Your task to perform on an android device: Open Wikipedia Image 0: 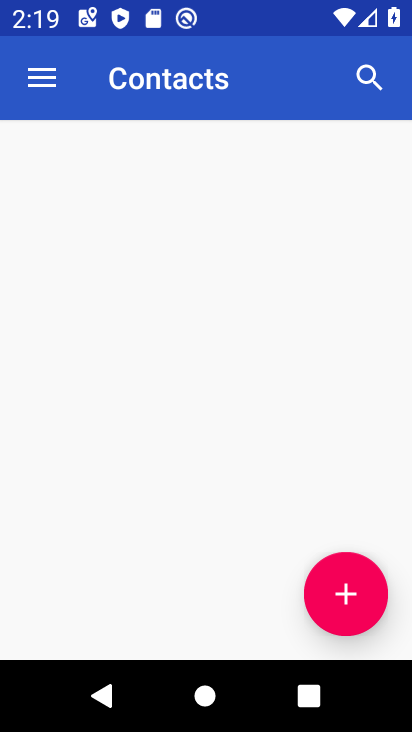
Step 0: drag from (334, 554) to (307, 108)
Your task to perform on an android device: Open Wikipedia Image 1: 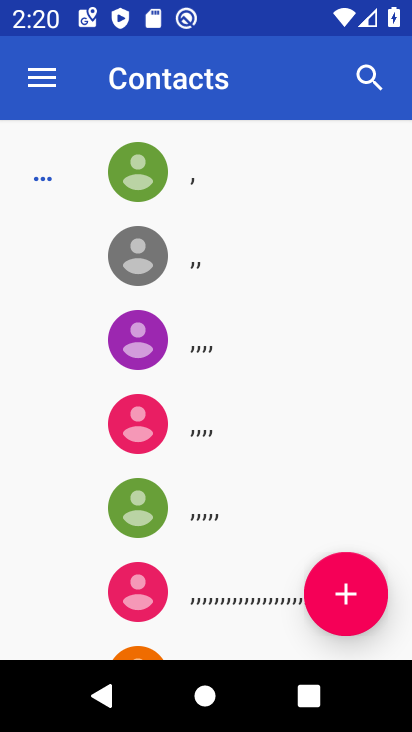
Step 1: press home button
Your task to perform on an android device: Open Wikipedia Image 2: 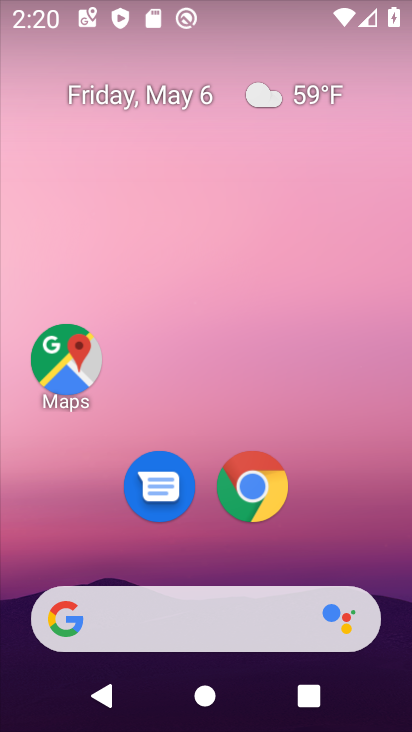
Step 2: click (247, 483)
Your task to perform on an android device: Open Wikipedia Image 3: 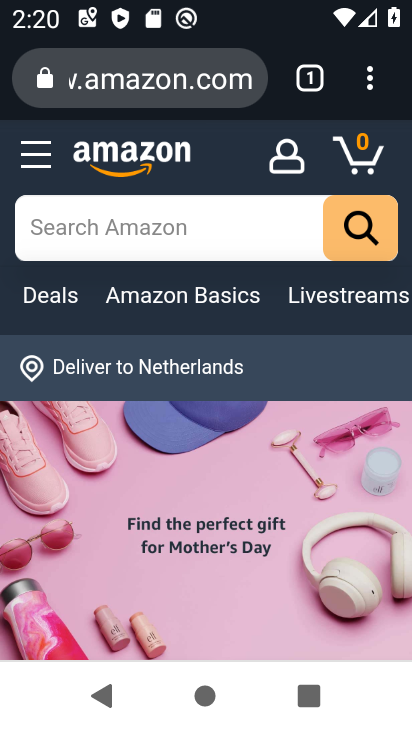
Step 3: click (369, 75)
Your task to perform on an android device: Open Wikipedia Image 4: 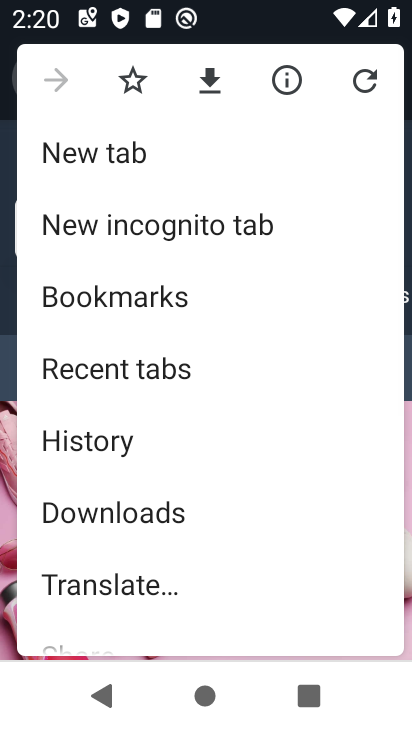
Step 4: click (110, 150)
Your task to perform on an android device: Open Wikipedia Image 5: 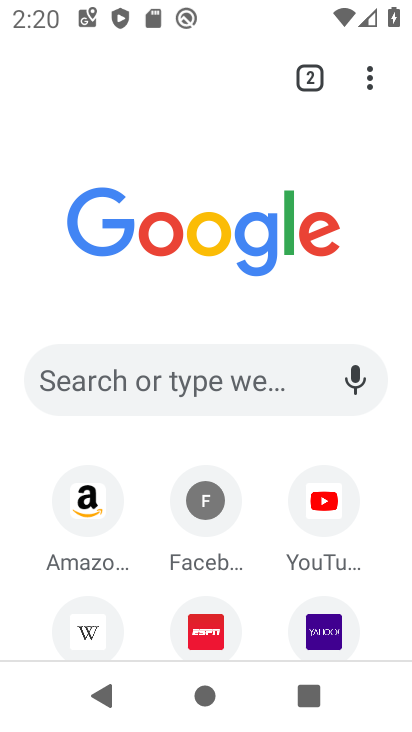
Step 5: click (89, 629)
Your task to perform on an android device: Open Wikipedia Image 6: 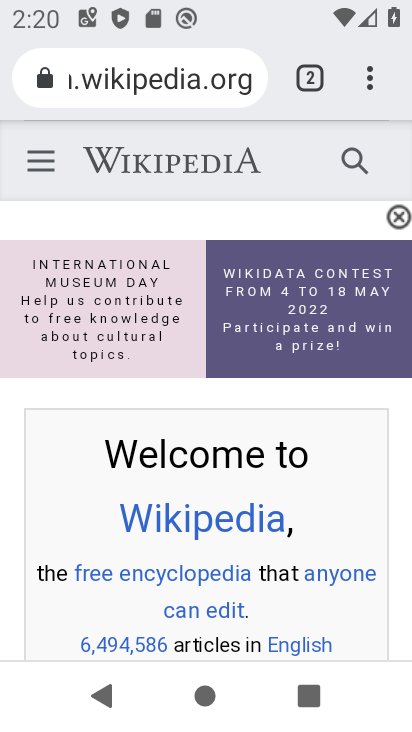
Step 6: task complete